Your task to perform on an android device: Do I have any events this weekend? Image 0: 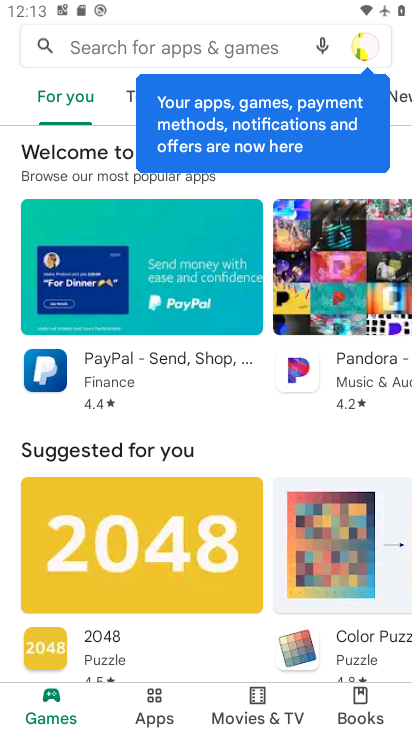
Step 0: press home button
Your task to perform on an android device: Do I have any events this weekend? Image 1: 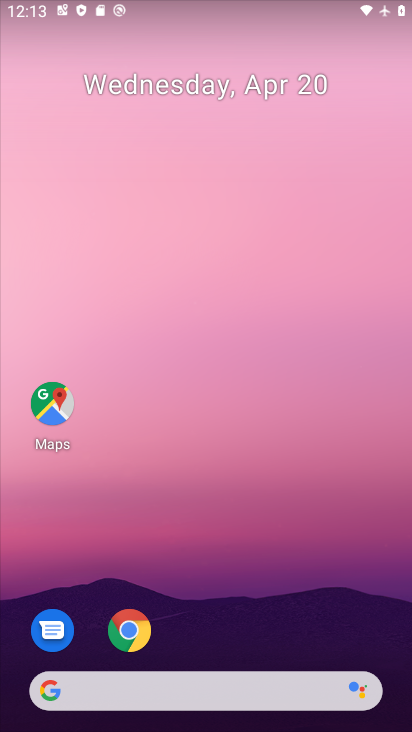
Step 1: drag from (217, 675) to (393, 66)
Your task to perform on an android device: Do I have any events this weekend? Image 2: 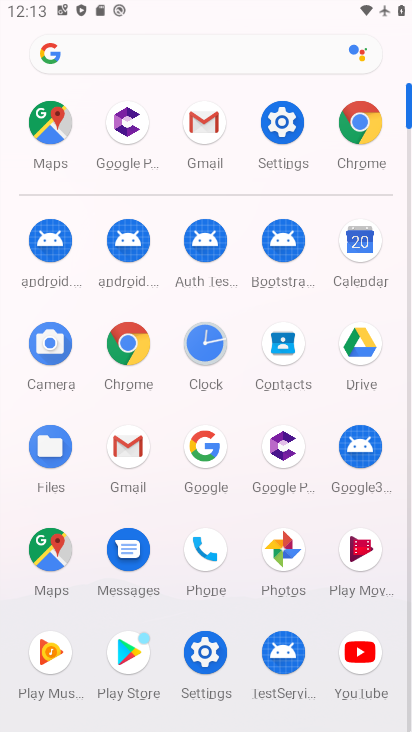
Step 2: click (358, 248)
Your task to perform on an android device: Do I have any events this weekend? Image 3: 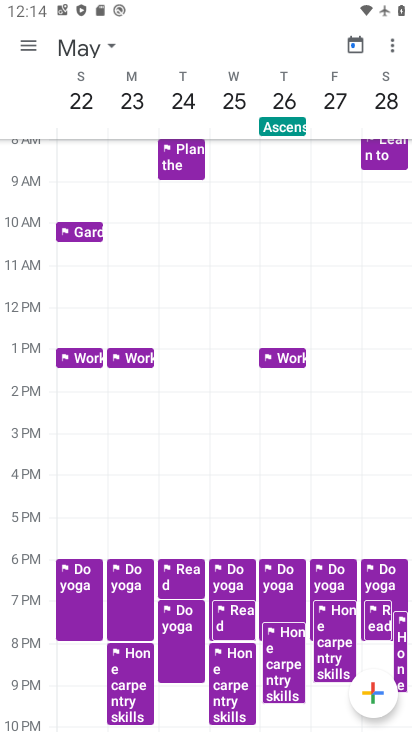
Step 3: click (85, 44)
Your task to perform on an android device: Do I have any events this weekend? Image 4: 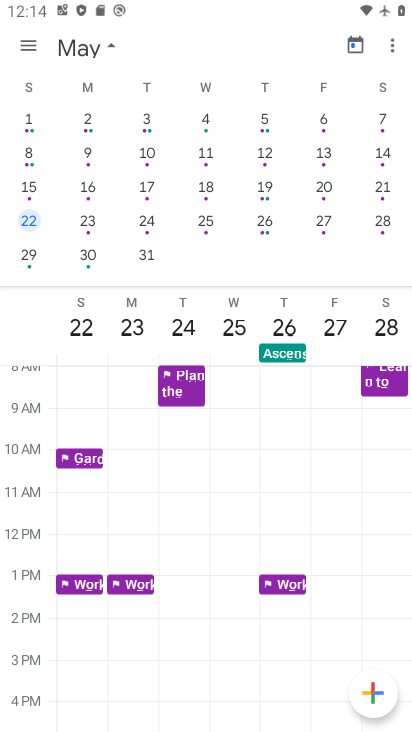
Step 4: drag from (52, 192) to (411, 195)
Your task to perform on an android device: Do I have any events this weekend? Image 5: 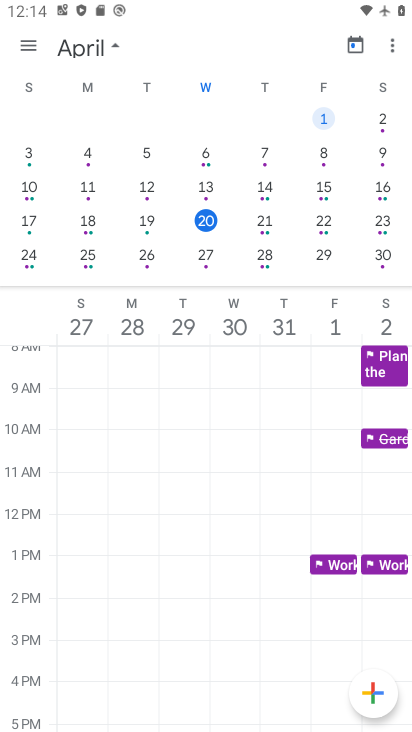
Step 5: click (381, 220)
Your task to perform on an android device: Do I have any events this weekend? Image 6: 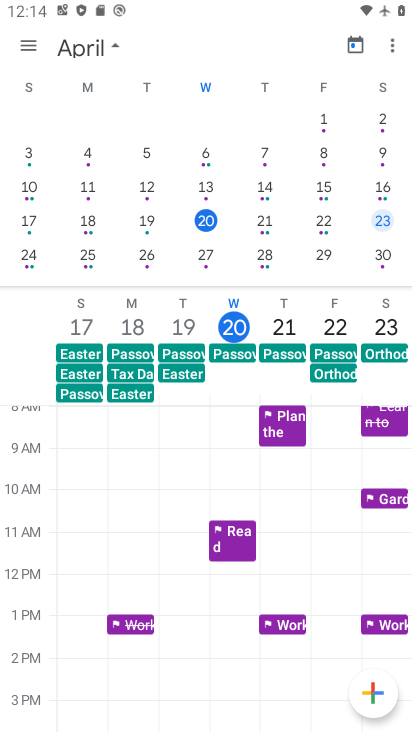
Step 6: click (28, 52)
Your task to perform on an android device: Do I have any events this weekend? Image 7: 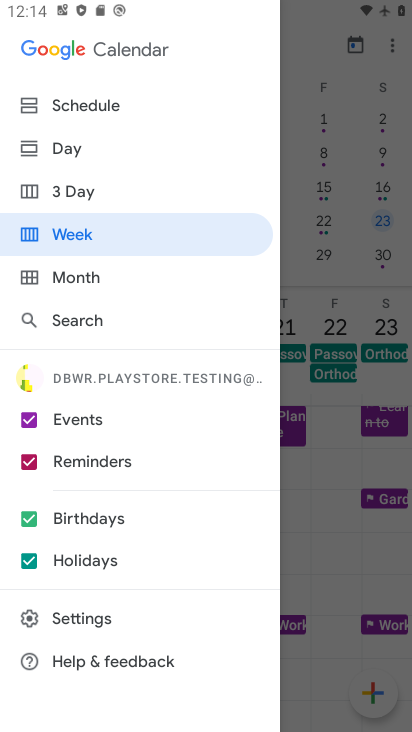
Step 7: click (68, 105)
Your task to perform on an android device: Do I have any events this weekend? Image 8: 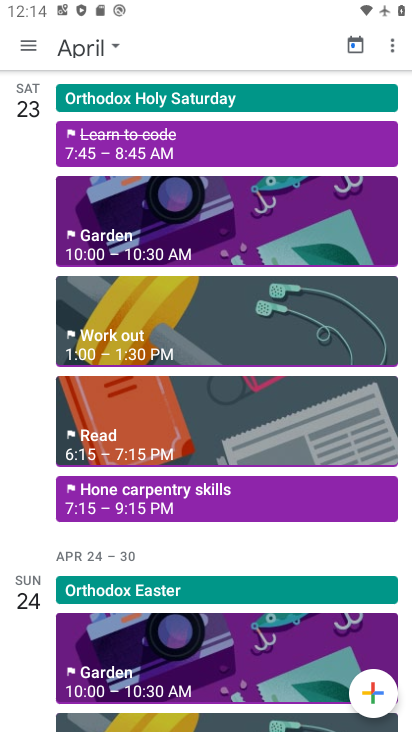
Step 8: click (161, 145)
Your task to perform on an android device: Do I have any events this weekend? Image 9: 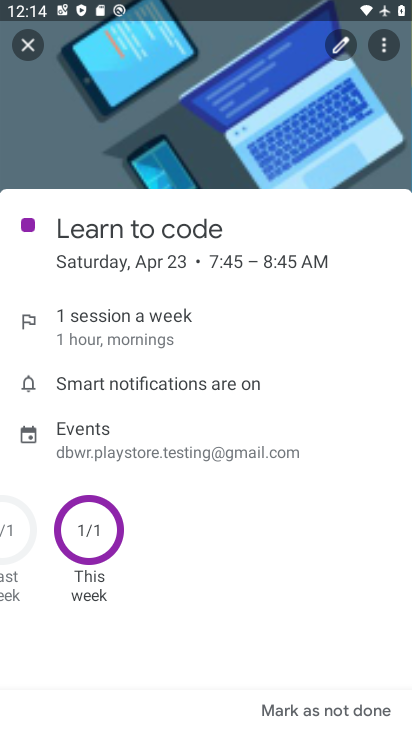
Step 9: task complete